Your task to perform on an android device: Go to Google Image 0: 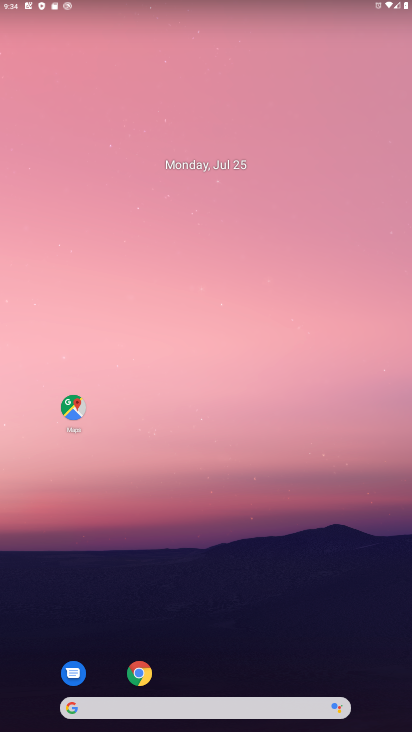
Step 0: click (240, 696)
Your task to perform on an android device: Go to Google Image 1: 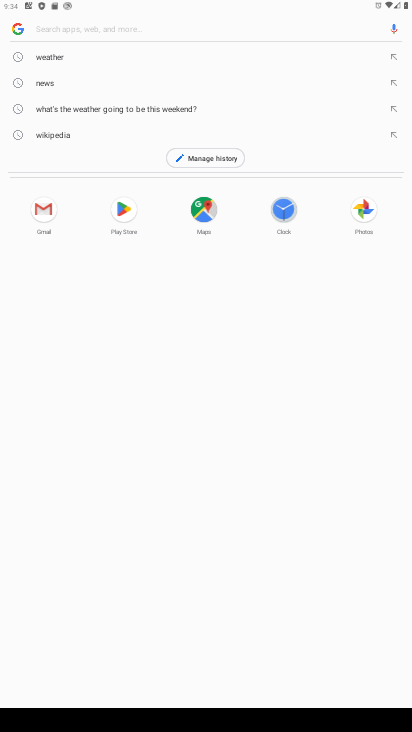
Step 1: click (166, 568)
Your task to perform on an android device: Go to Google Image 2: 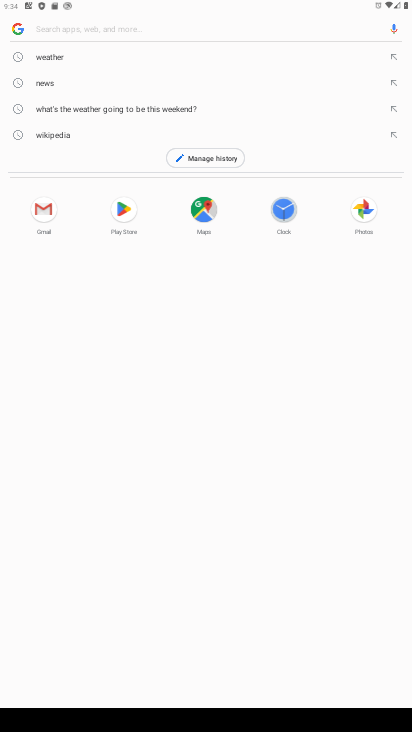
Step 2: task complete